Your task to perform on an android device: Show me popular videos on Youtube Image 0: 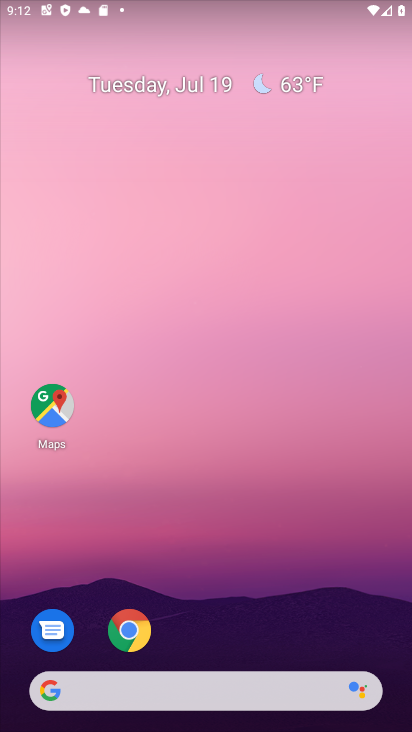
Step 0: drag from (203, 699) to (222, 95)
Your task to perform on an android device: Show me popular videos on Youtube Image 1: 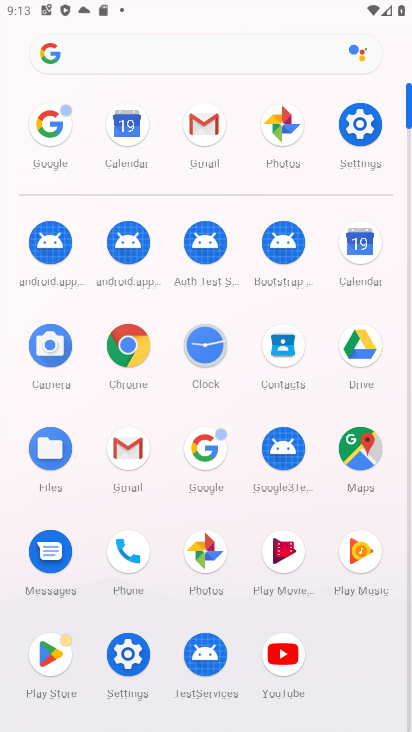
Step 1: click (282, 653)
Your task to perform on an android device: Show me popular videos on Youtube Image 2: 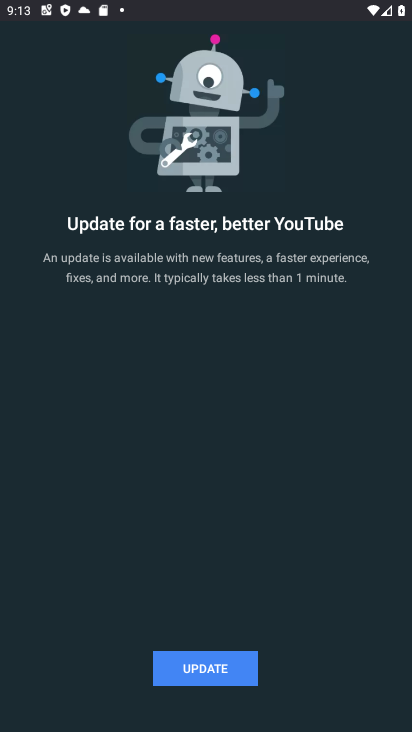
Step 2: click (201, 677)
Your task to perform on an android device: Show me popular videos on Youtube Image 3: 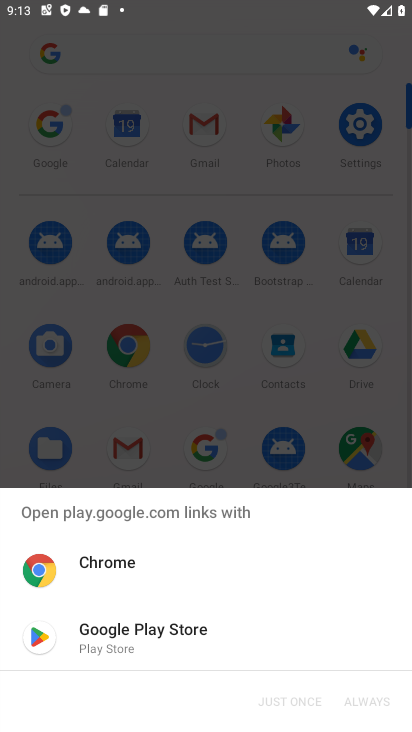
Step 3: click (116, 627)
Your task to perform on an android device: Show me popular videos on Youtube Image 4: 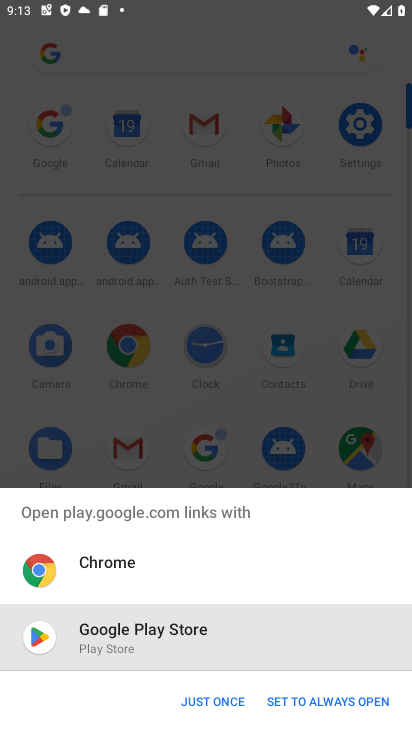
Step 4: click (209, 700)
Your task to perform on an android device: Show me popular videos on Youtube Image 5: 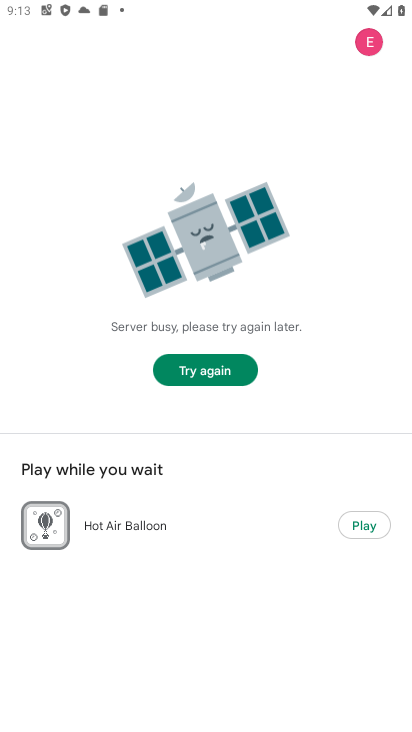
Step 5: click (212, 371)
Your task to perform on an android device: Show me popular videos on Youtube Image 6: 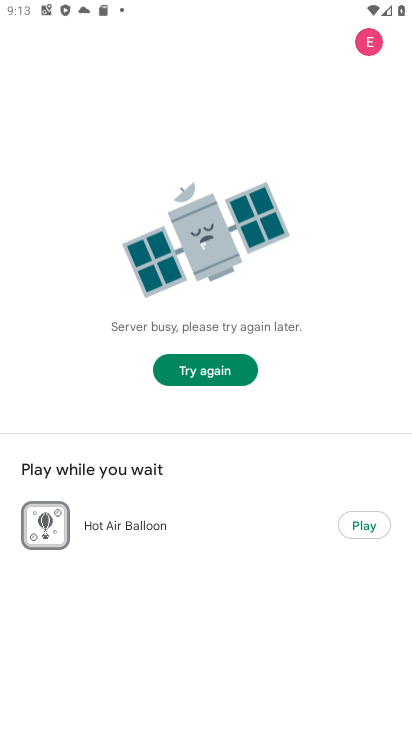
Step 6: click (212, 371)
Your task to perform on an android device: Show me popular videos on Youtube Image 7: 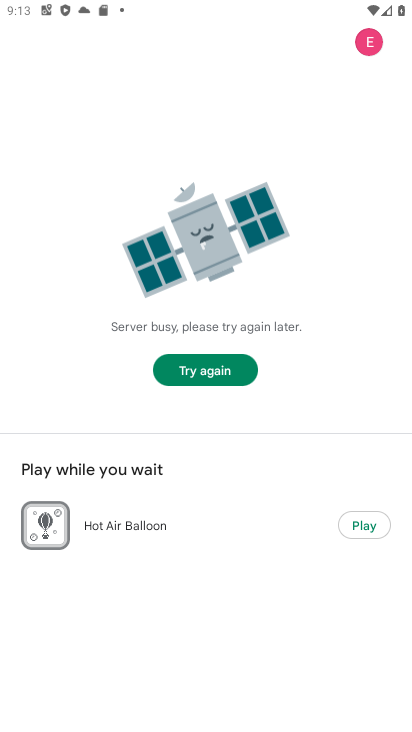
Step 7: task complete